Your task to perform on an android device: add a contact Image 0: 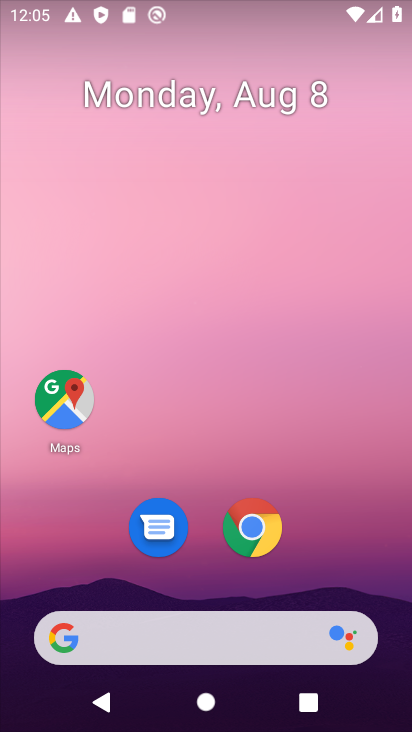
Step 0: drag from (284, 451) to (320, 0)
Your task to perform on an android device: add a contact Image 1: 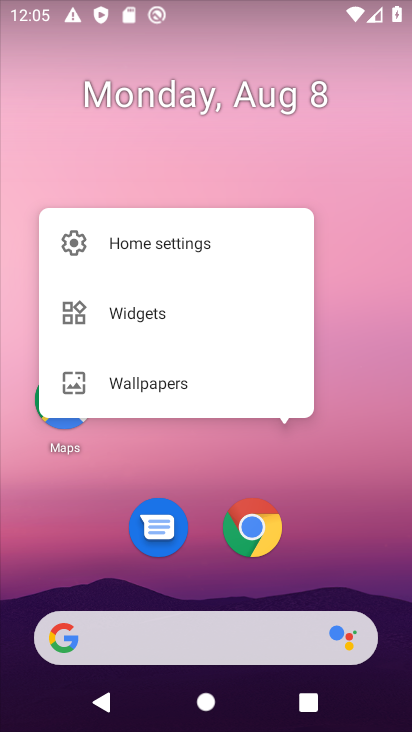
Step 1: click (348, 516)
Your task to perform on an android device: add a contact Image 2: 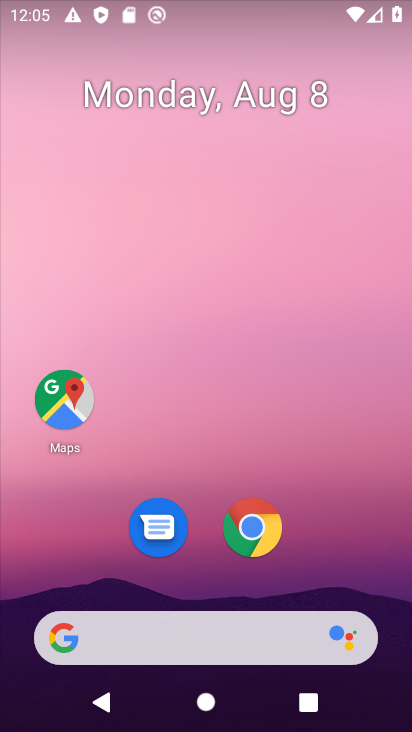
Step 2: task complete